Your task to perform on an android device: Find coffee shops on Maps Image 0: 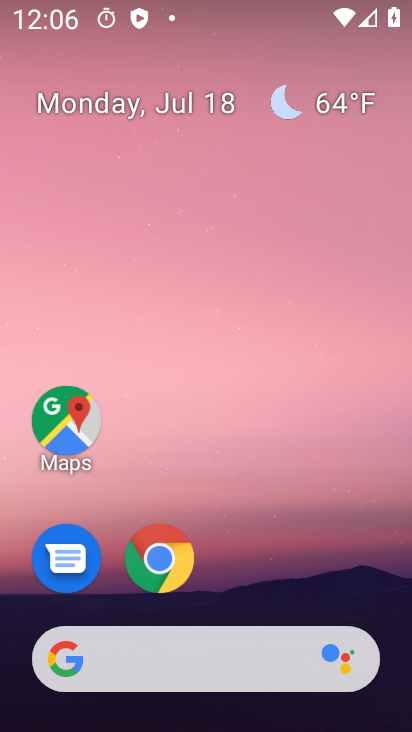
Step 0: drag from (351, 578) to (351, 300)
Your task to perform on an android device: Find coffee shops on Maps Image 1: 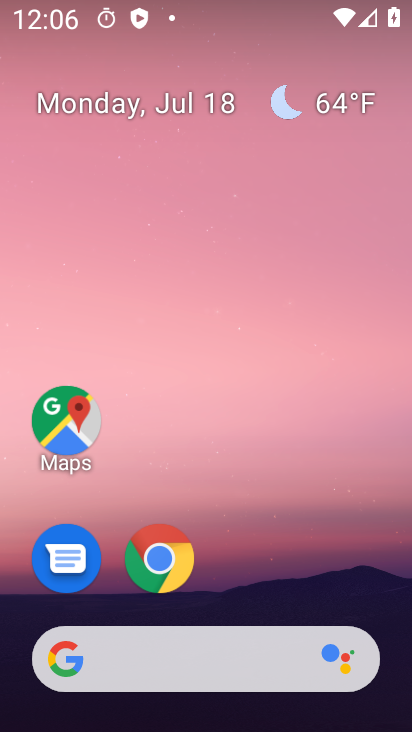
Step 1: press home button
Your task to perform on an android device: Find coffee shops on Maps Image 2: 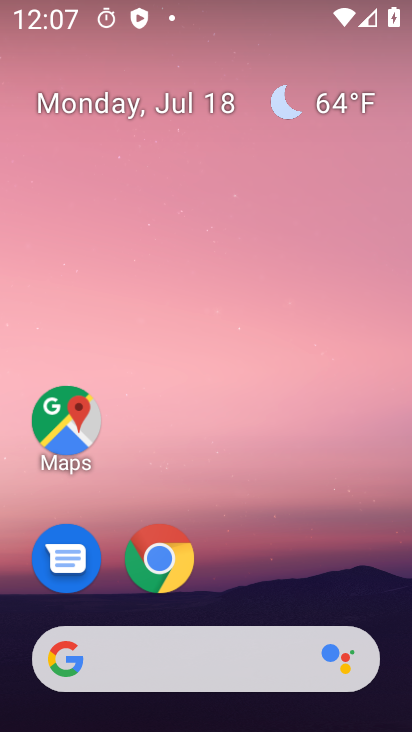
Step 2: drag from (292, 564) to (323, 78)
Your task to perform on an android device: Find coffee shops on Maps Image 3: 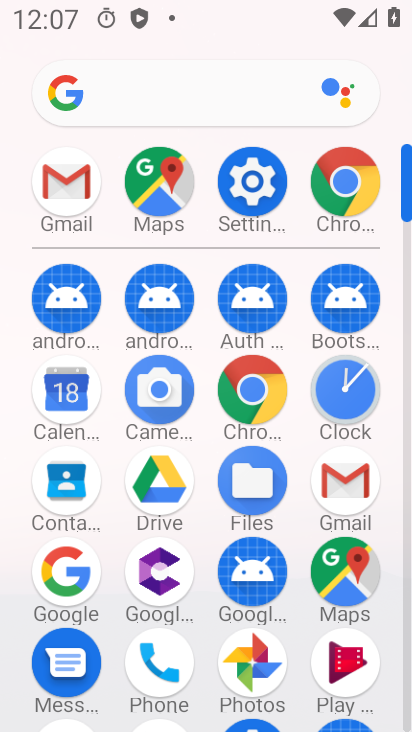
Step 3: click (341, 578)
Your task to perform on an android device: Find coffee shops on Maps Image 4: 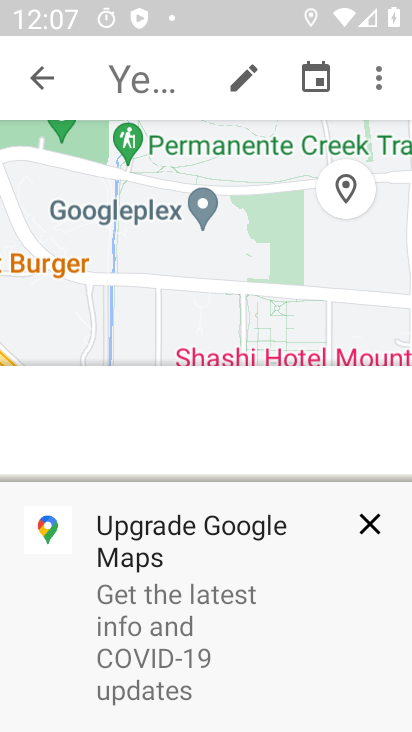
Step 4: press back button
Your task to perform on an android device: Find coffee shops on Maps Image 5: 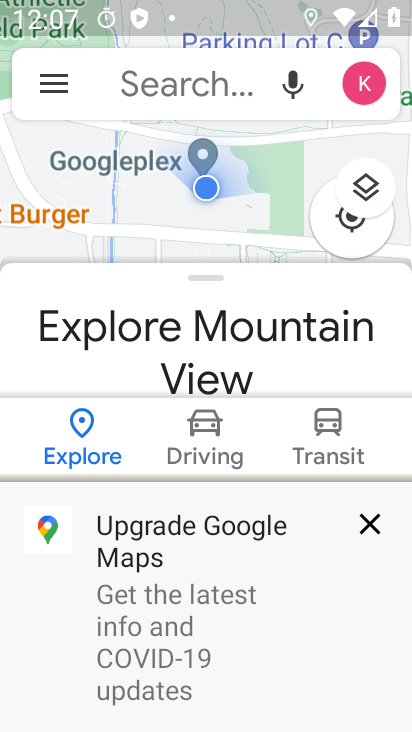
Step 5: click (238, 95)
Your task to perform on an android device: Find coffee shops on Maps Image 6: 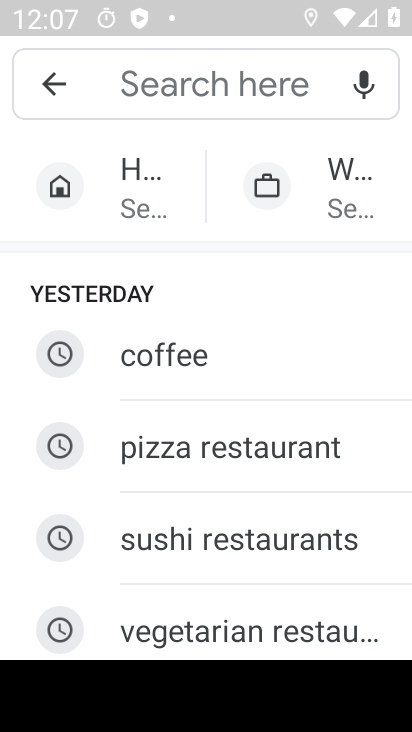
Step 6: type "coffee shops"
Your task to perform on an android device: Find coffee shops on Maps Image 7: 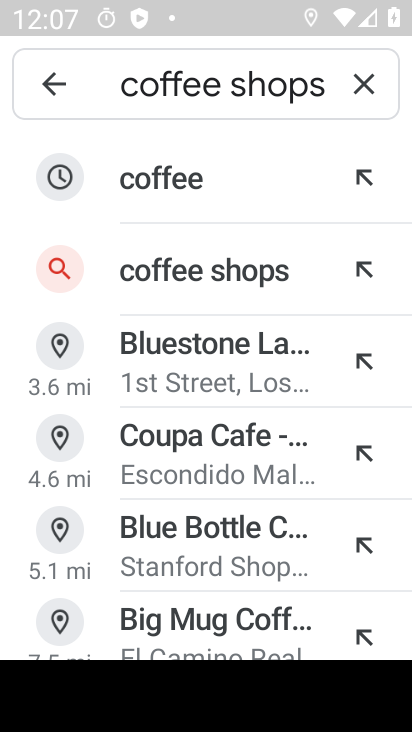
Step 7: click (283, 280)
Your task to perform on an android device: Find coffee shops on Maps Image 8: 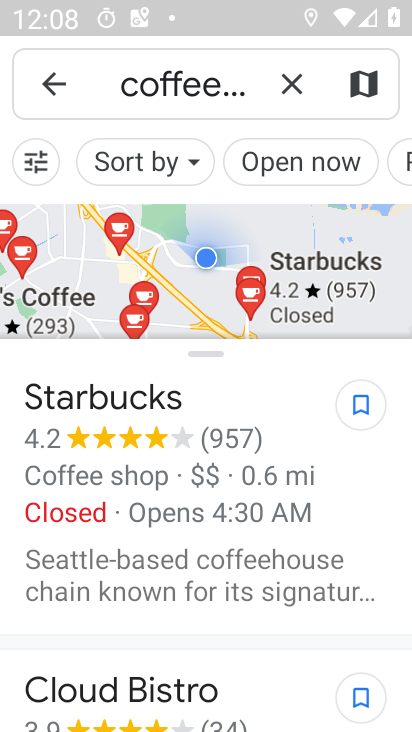
Step 8: task complete